Your task to perform on an android device: toggle translation in the chrome app Image 0: 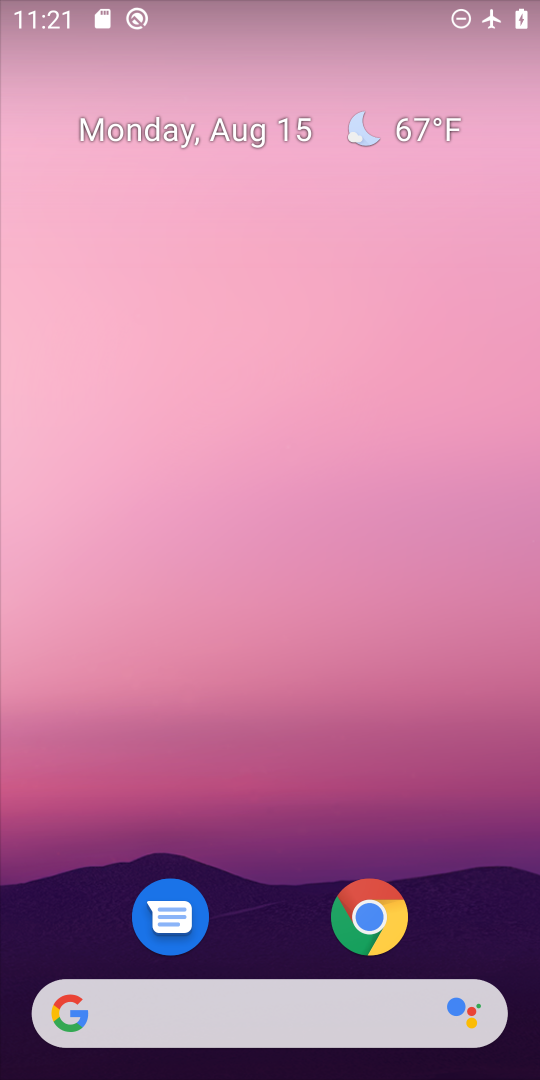
Step 0: click (376, 912)
Your task to perform on an android device: toggle translation in the chrome app Image 1: 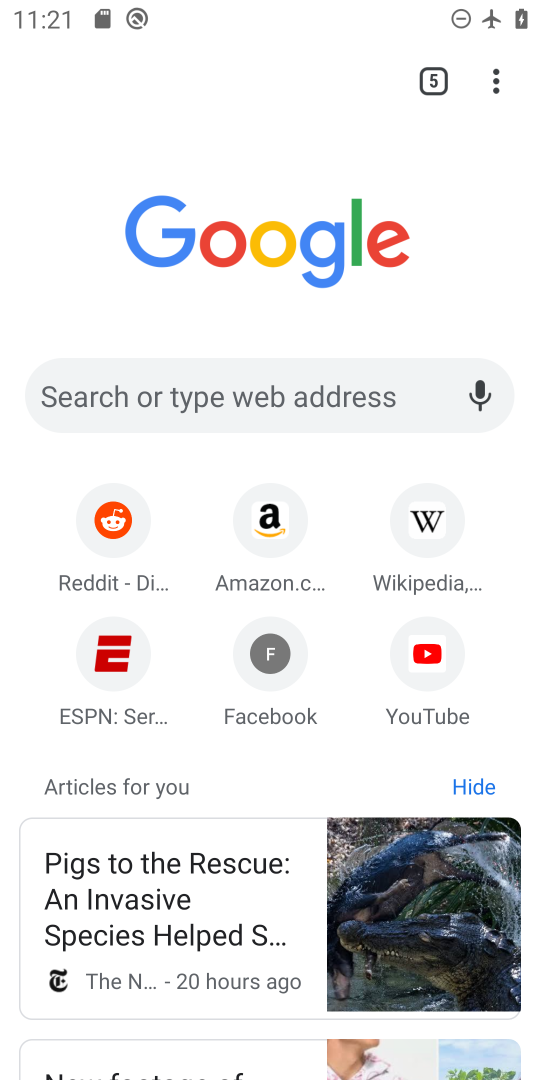
Step 1: click (500, 85)
Your task to perform on an android device: toggle translation in the chrome app Image 2: 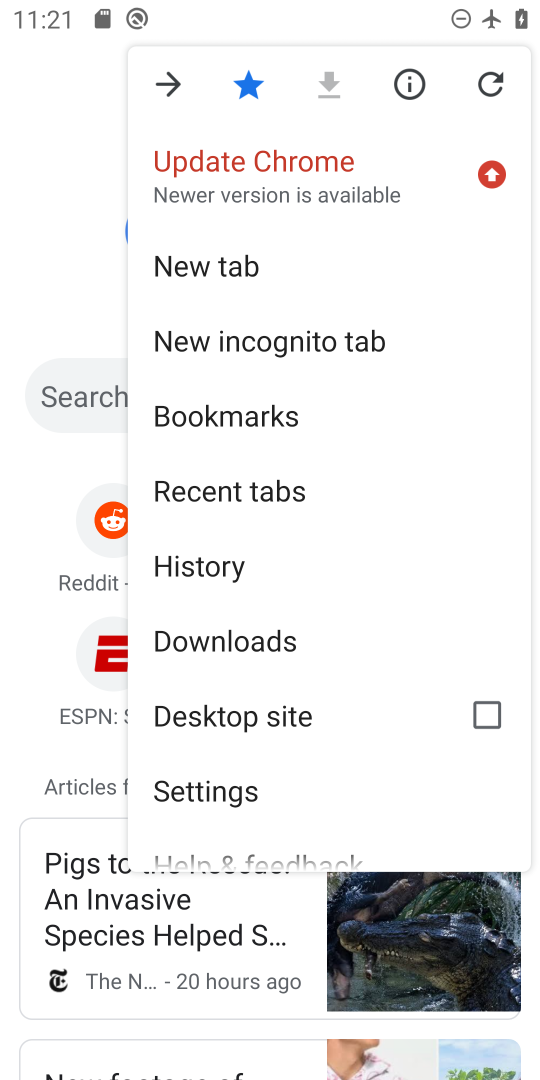
Step 2: click (251, 779)
Your task to perform on an android device: toggle translation in the chrome app Image 3: 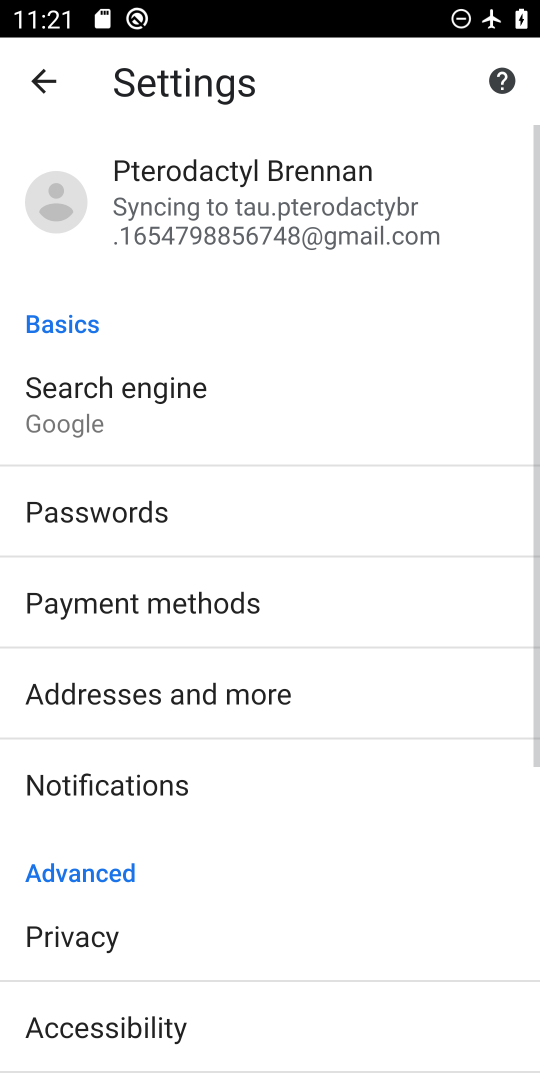
Step 3: drag from (240, 889) to (285, 107)
Your task to perform on an android device: toggle translation in the chrome app Image 4: 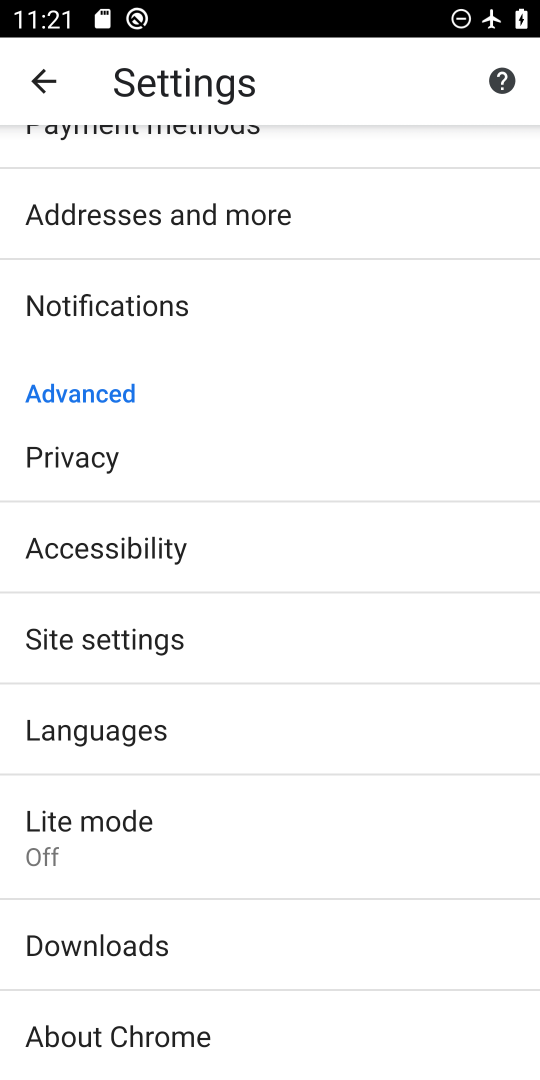
Step 4: click (268, 724)
Your task to perform on an android device: toggle translation in the chrome app Image 5: 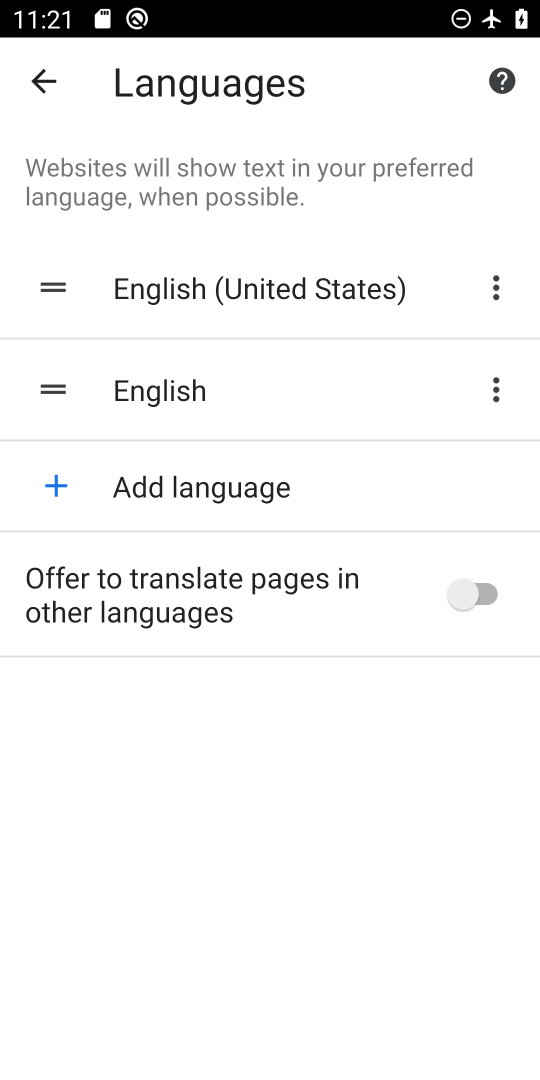
Step 5: click (484, 592)
Your task to perform on an android device: toggle translation in the chrome app Image 6: 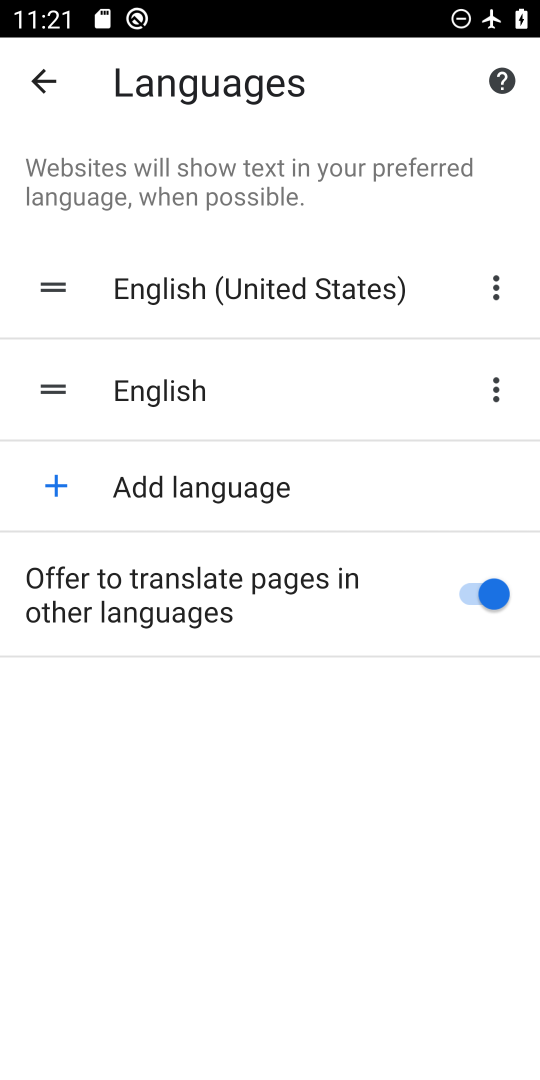
Step 6: task complete